Your task to perform on an android device: open app "Google Chrome" (install if not already installed) Image 0: 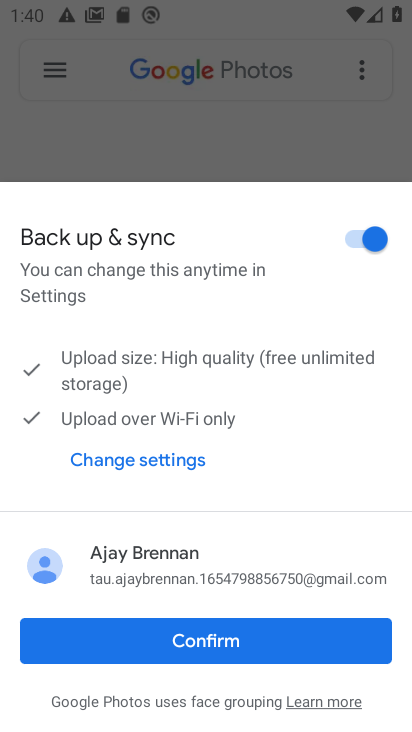
Step 0: press home button
Your task to perform on an android device: open app "Google Chrome" (install if not already installed) Image 1: 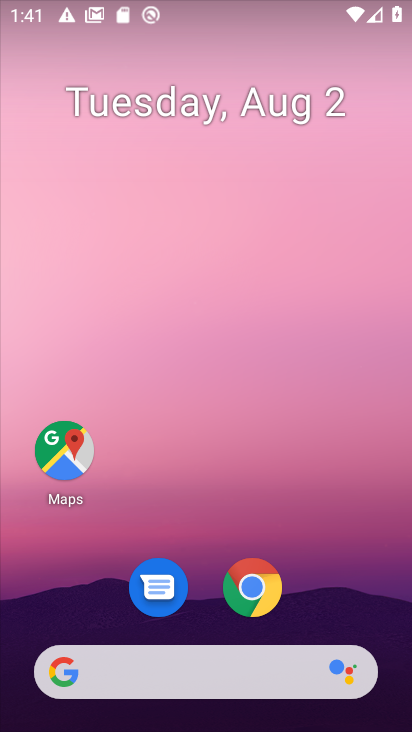
Step 1: drag from (187, 532) to (233, 0)
Your task to perform on an android device: open app "Google Chrome" (install if not already installed) Image 2: 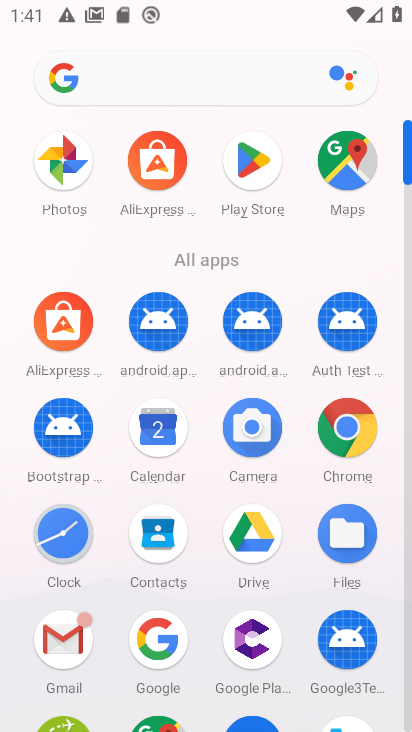
Step 2: click (261, 221)
Your task to perform on an android device: open app "Google Chrome" (install if not already installed) Image 3: 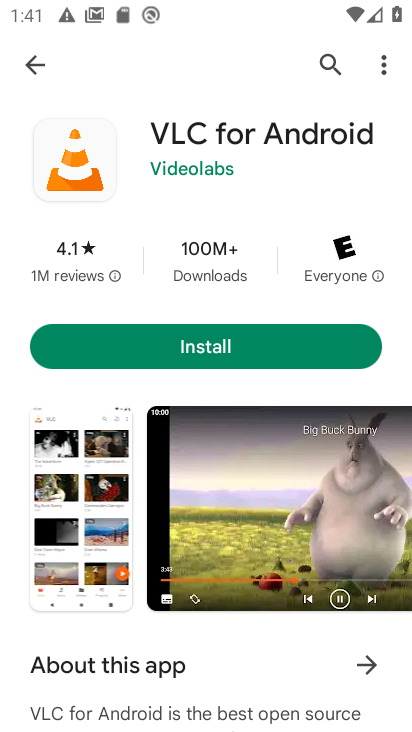
Step 3: click (381, 62)
Your task to perform on an android device: open app "Google Chrome" (install if not already installed) Image 4: 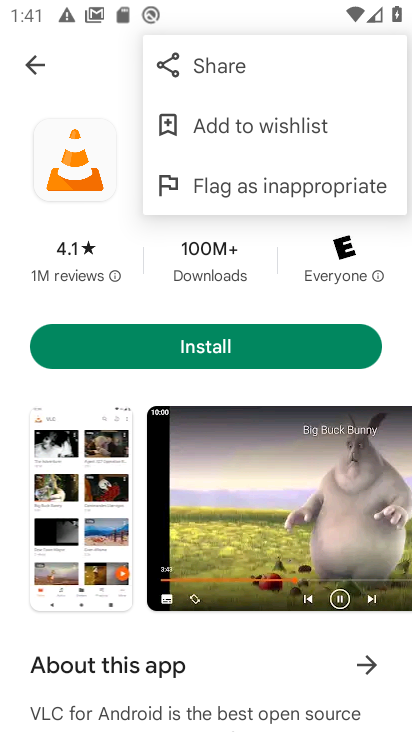
Step 4: click (86, 57)
Your task to perform on an android device: open app "Google Chrome" (install if not already installed) Image 5: 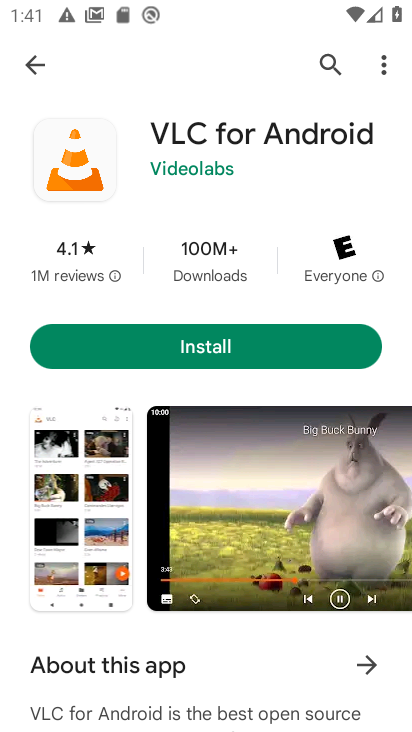
Step 5: click (320, 68)
Your task to perform on an android device: open app "Google Chrome" (install if not already installed) Image 6: 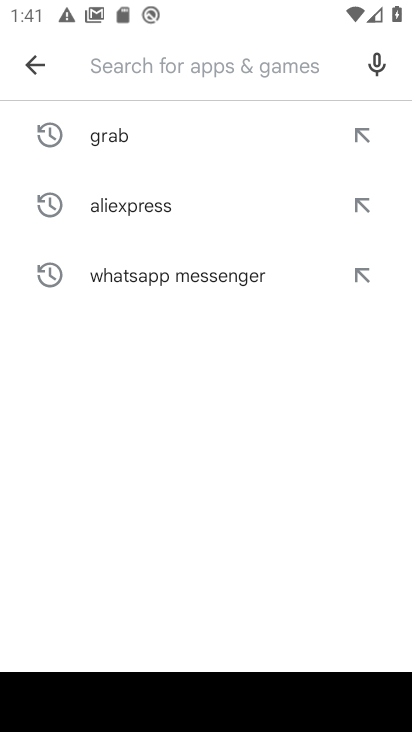
Step 6: type "Google Chrom"
Your task to perform on an android device: open app "Google Chrome" (install if not already installed) Image 7: 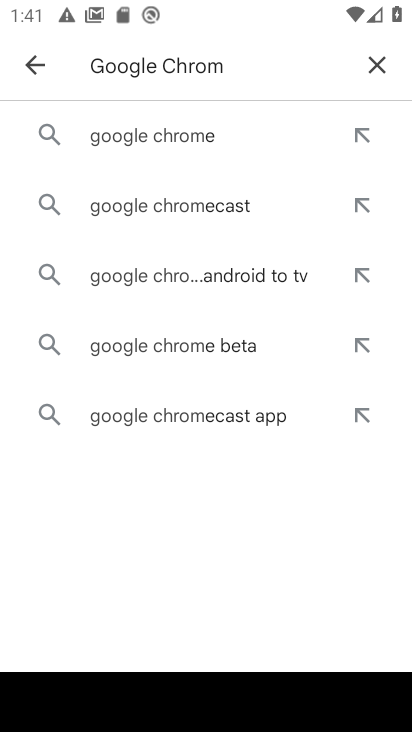
Step 7: click (214, 147)
Your task to perform on an android device: open app "Google Chrome" (install if not already installed) Image 8: 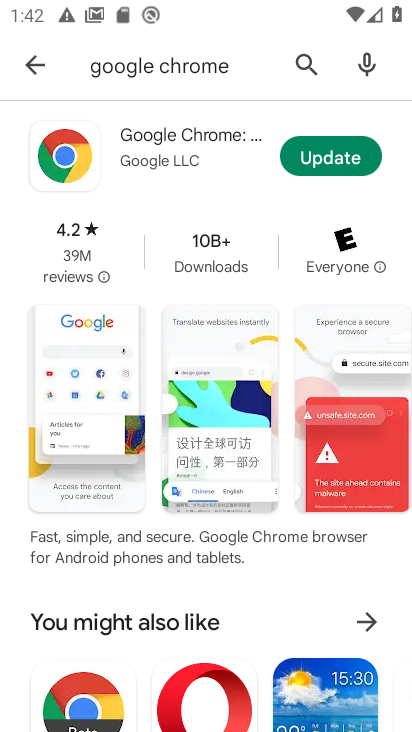
Step 8: click (220, 138)
Your task to perform on an android device: open app "Google Chrome" (install if not already installed) Image 9: 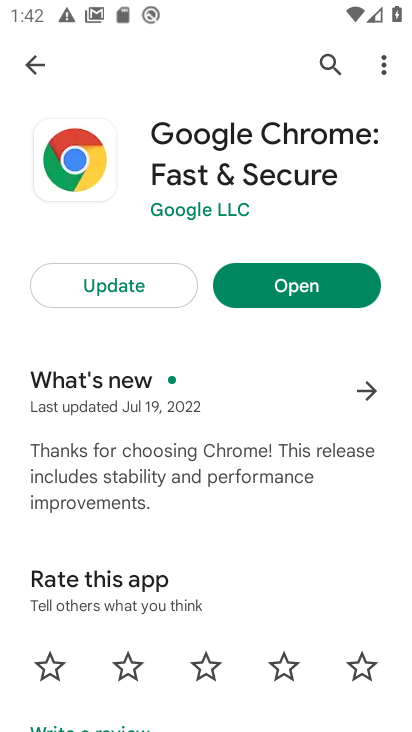
Step 9: click (276, 299)
Your task to perform on an android device: open app "Google Chrome" (install if not already installed) Image 10: 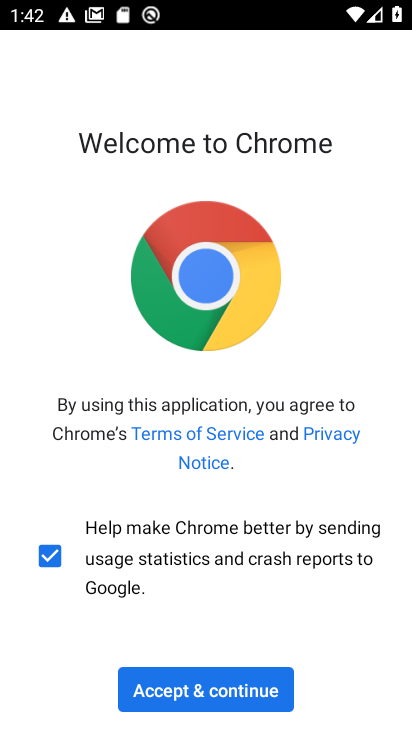
Step 10: click (213, 686)
Your task to perform on an android device: open app "Google Chrome" (install if not already installed) Image 11: 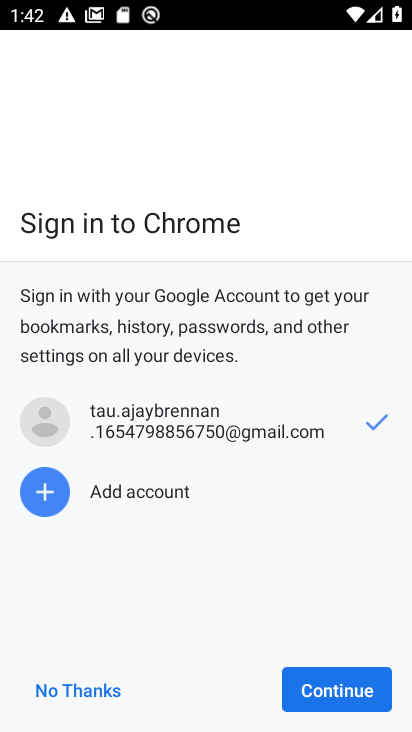
Step 11: click (321, 694)
Your task to perform on an android device: open app "Google Chrome" (install if not already installed) Image 12: 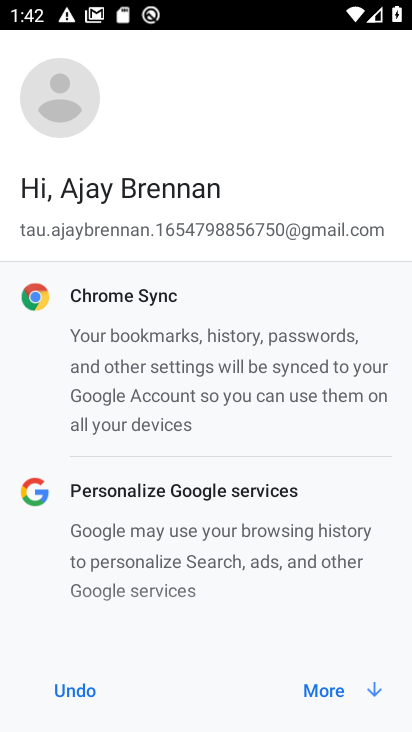
Step 12: click (345, 685)
Your task to perform on an android device: open app "Google Chrome" (install if not already installed) Image 13: 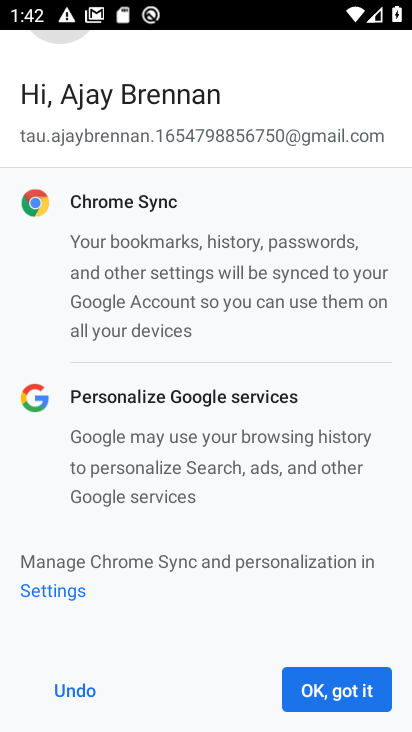
Step 13: click (345, 685)
Your task to perform on an android device: open app "Google Chrome" (install if not already installed) Image 14: 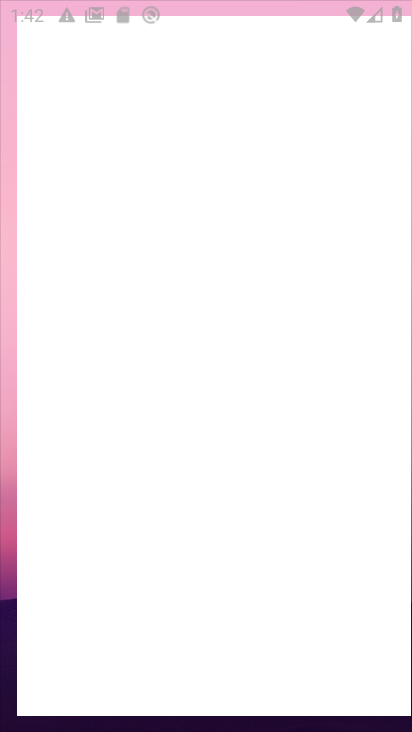
Step 14: task complete